Your task to perform on an android device: change the clock display to analog Image 0: 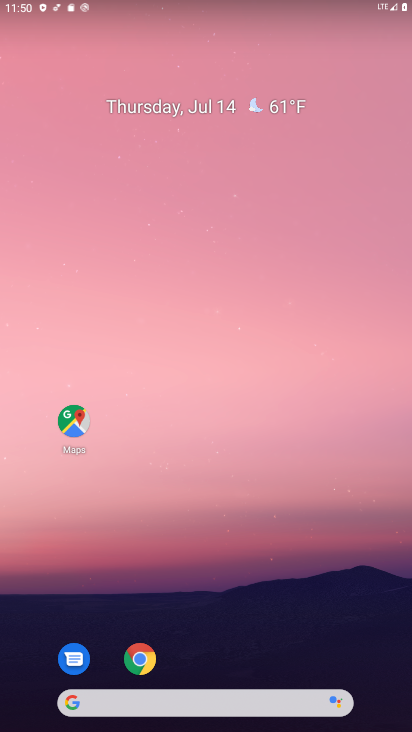
Step 0: drag from (175, 704) to (247, 198)
Your task to perform on an android device: change the clock display to analog Image 1: 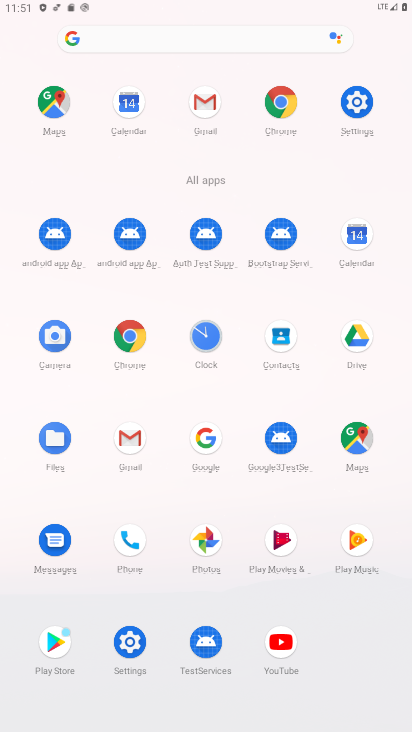
Step 1: click (205, 337)
Your task to perform on an android device: change the clock display to analog Image 2: 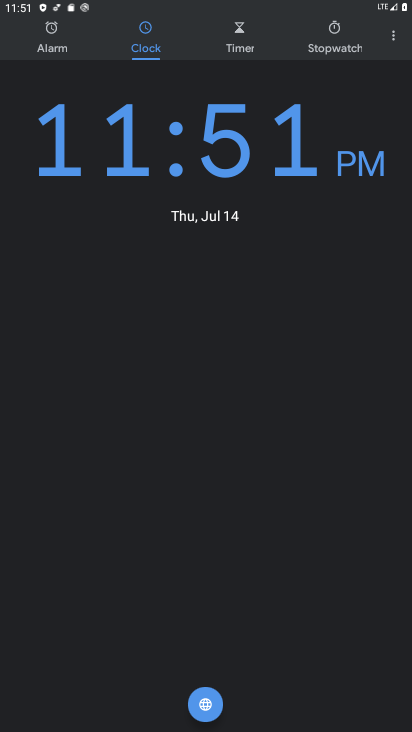
Step 2: click (392, 37)
Your task to perform on an android device: change the clock display to analog Image 3: 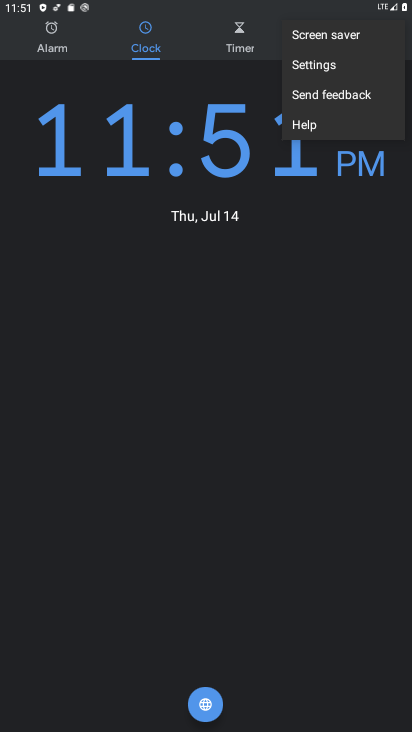
Step 3: click (332, 64)
Your task to perform on an android device: change the clock display to analog Image 4: 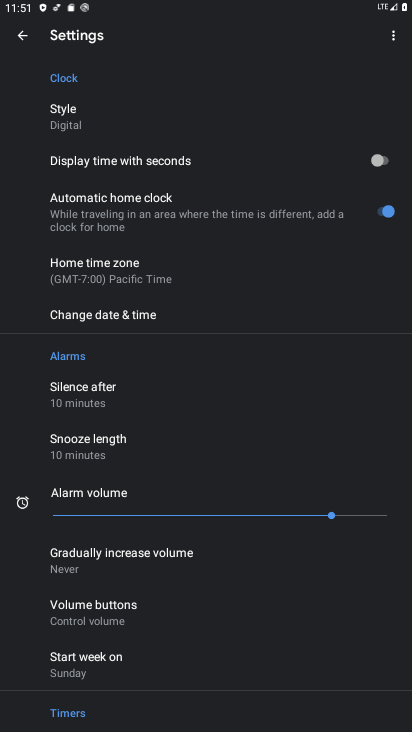
Step 4: click (89, 115)
Your task to perform on an android device: change the clock display to analog Image 5: 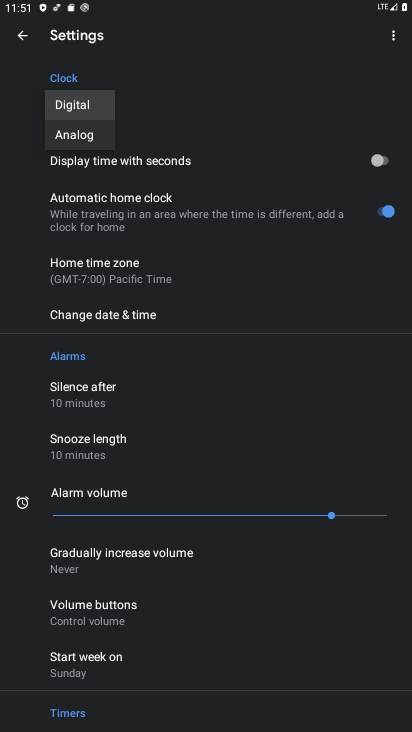
Step 5: click (90, 136)
Your task to perform on an android device: change the clock display to analog Image 6: 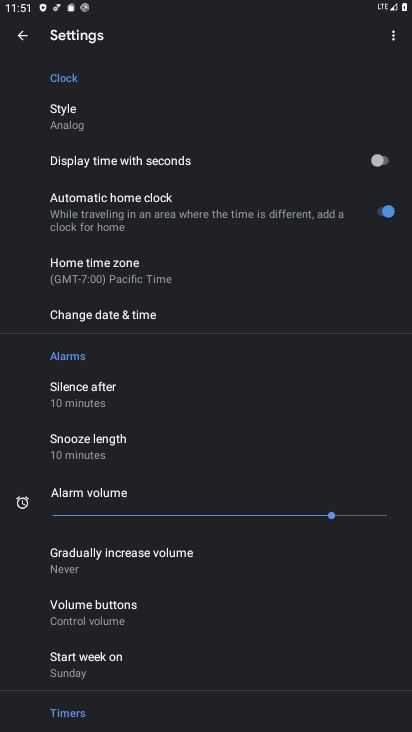
Step 6: task complete